Your task to perform on an android device: check battery use Image 0: 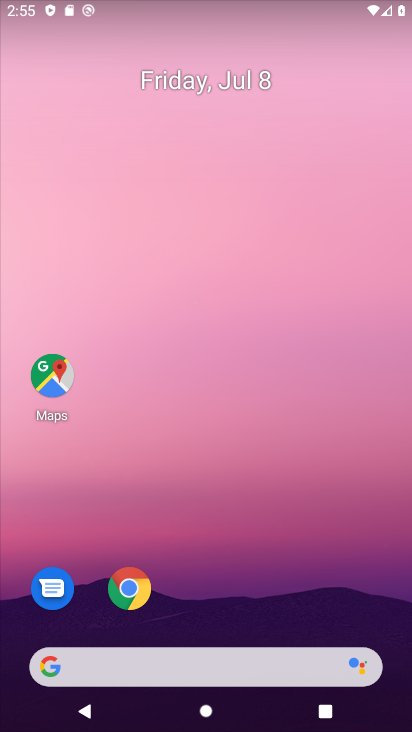
Step 0: drag from (203, 625) to (340, 107)
Your task to perform on an android device: check battery use Image 1: 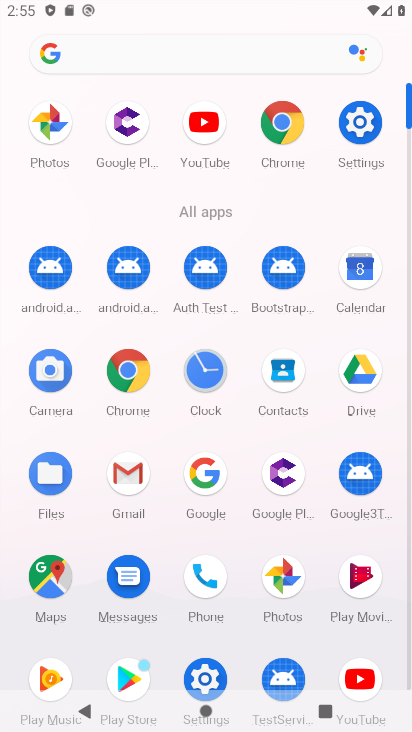
Step 1: click (348, 118)
Your task to perform on an android device: check battery use Image 2: 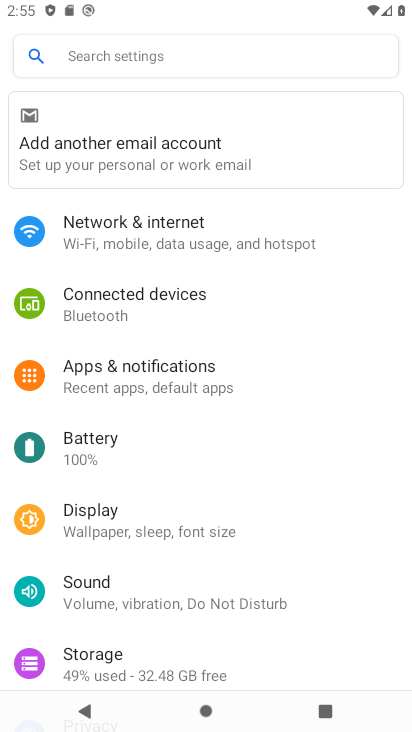
Step 2: click (109, 444)
Your task to perform on an android device: check battery use Image 3: 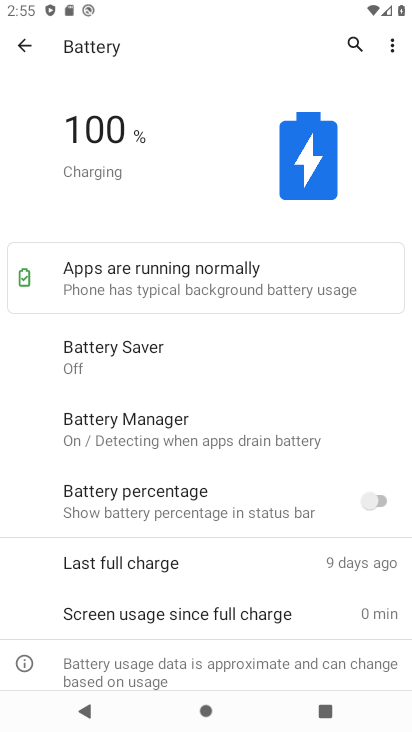
Step 3: click (391, 45)
Your task to perform on an android device: check battery use Image 4: 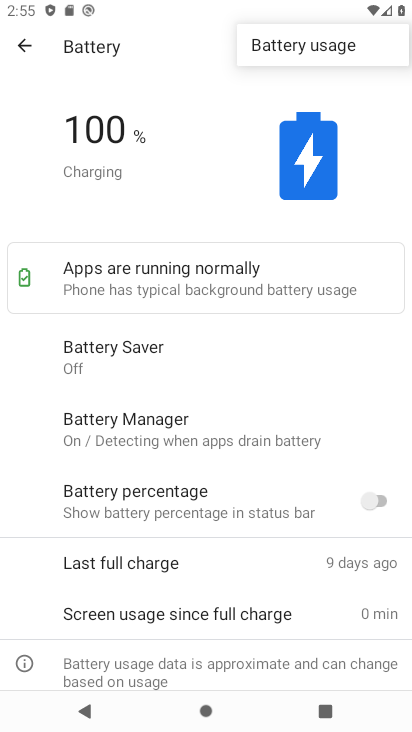
Step 4: click (302, 53)
Your task to perform on an android device: check battery use Image 5: 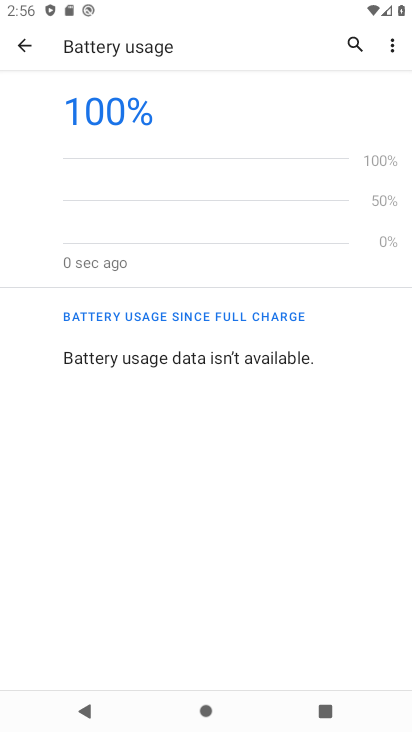
Step 5: task complete